Your task to perform on an android device: change notification settings in the gmail app Image 0: 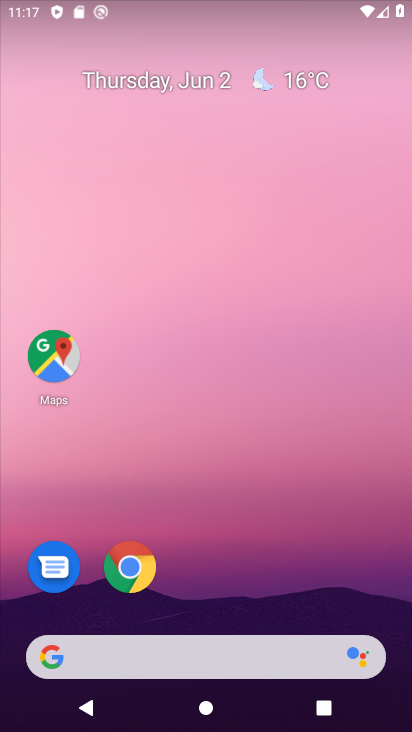
Step 0: drag from (208, 566) to (261, 45)
Your task to perform on an android device: change notification settings in the gmail app Image 1: 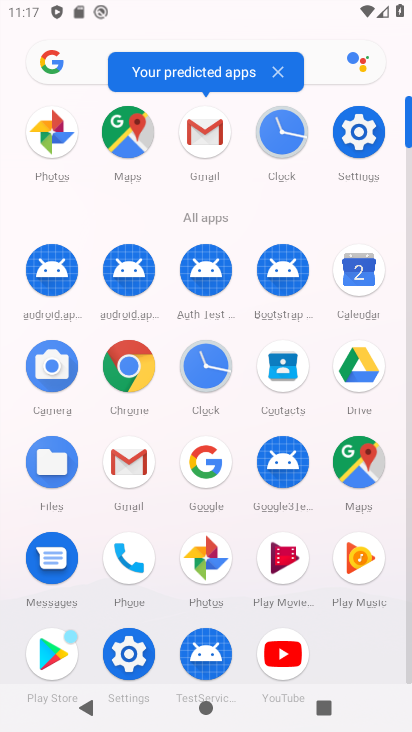
Step 1: drag from (207, 324) to (184, 161)
Your task to perform on an android device: change notification settings in the gmail app Image 2: 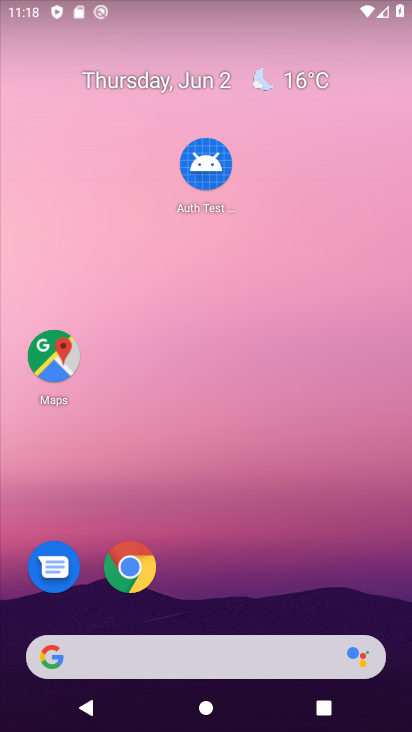
Step 2: drag from (164, 553) to (165, 17)
Your task to perform on an android device: change notification settings in the gmail app Image 3: 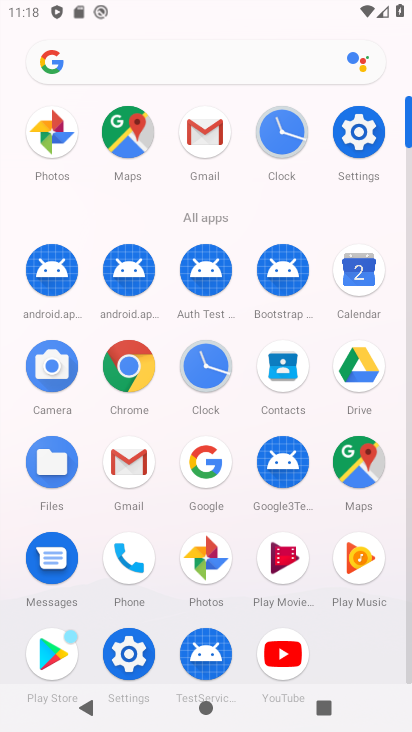
Step 3: click (204, 139)
Your task to perform on an android device: change notification settings in the gmail app Image 4: 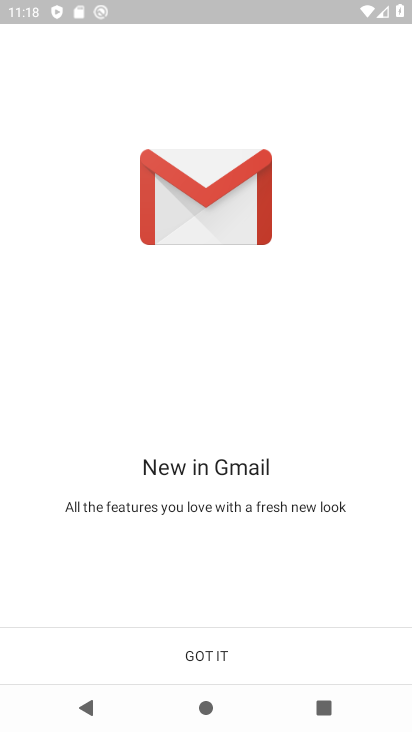
Step 4: click (240, 672)
Your task to perform on an android device: change notification settings in the gmail app Image 5: 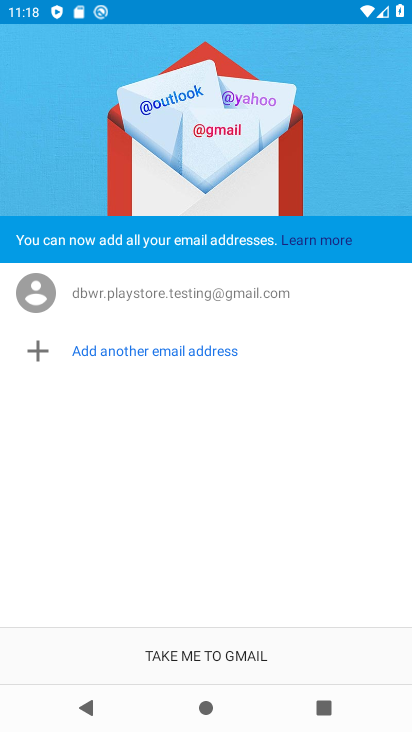
Step 5: click (240, 672)
Your task to perform on an android device: change notification settings in the gmail app Image 6: 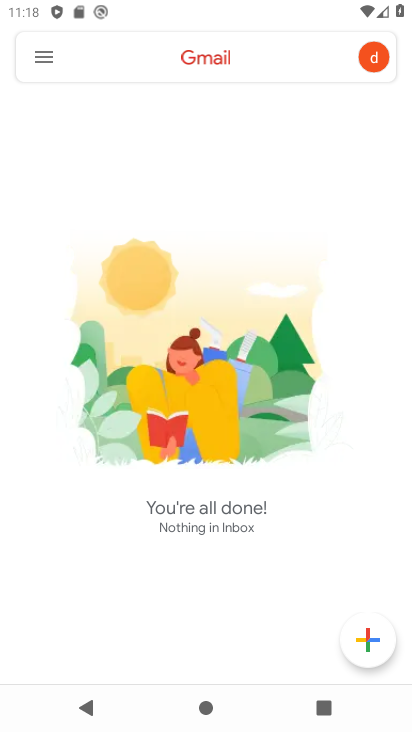
Step 6: click (37, 52)
Your task to perform on an android device: change notification settings in the gmail app Image 7: 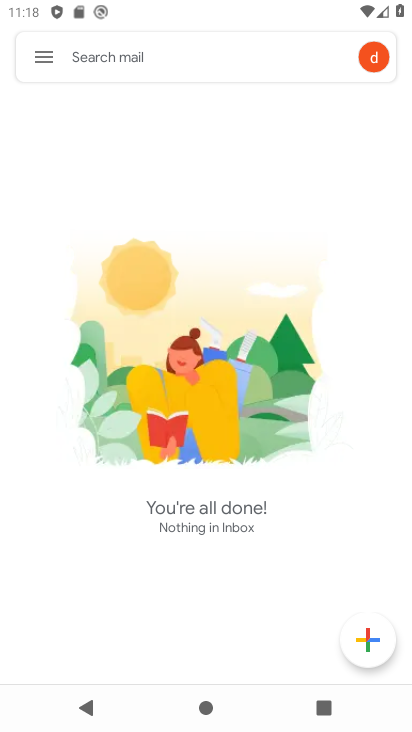
Step 7: click (48, 64)
Your task to perform on an android device: change notification settings in the gmail app Image 8: 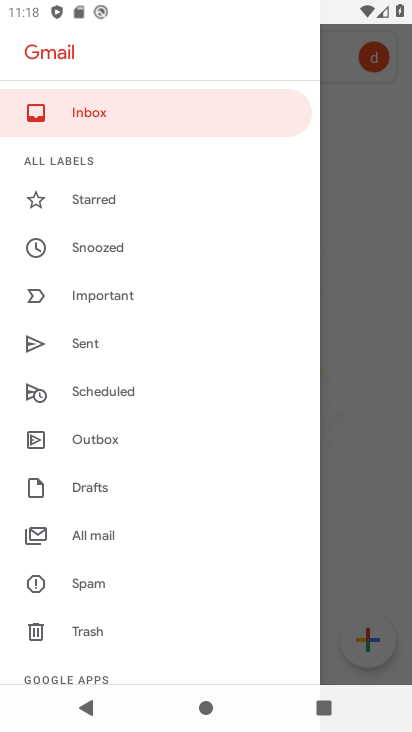
Step 8: drag from (144, 625) to (169, 199)
Your task to perform on an android device: change notification settings in the gmail app Image 9: 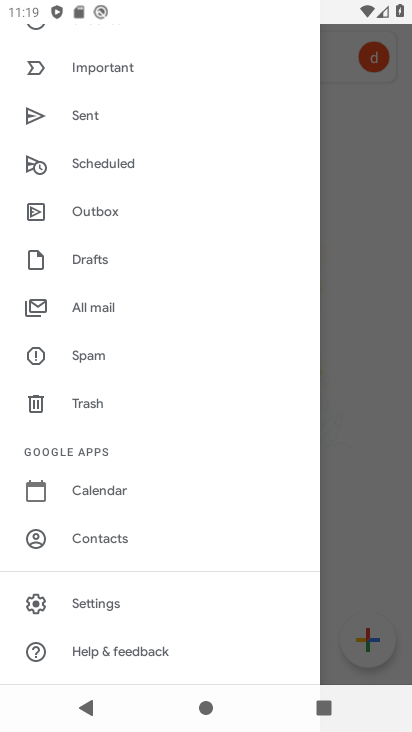
Step 9: click (95, 610)
Your task to perform on an android device: change notification settings in the gmail app Image 10: 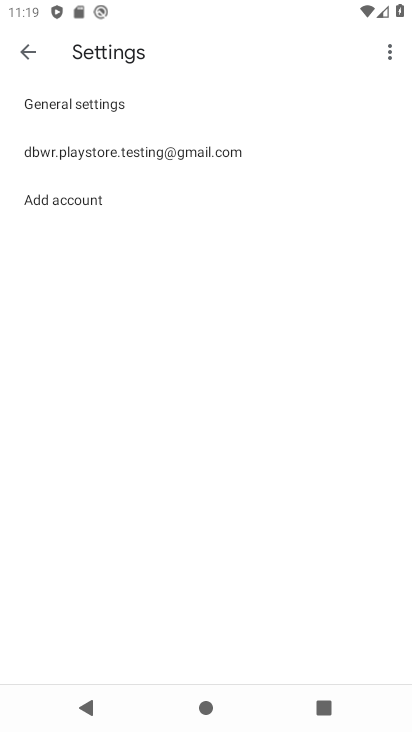
Step 10: click (176, 137)
Your task to perform on an android device: change notification settings in the gmail app Image 11: 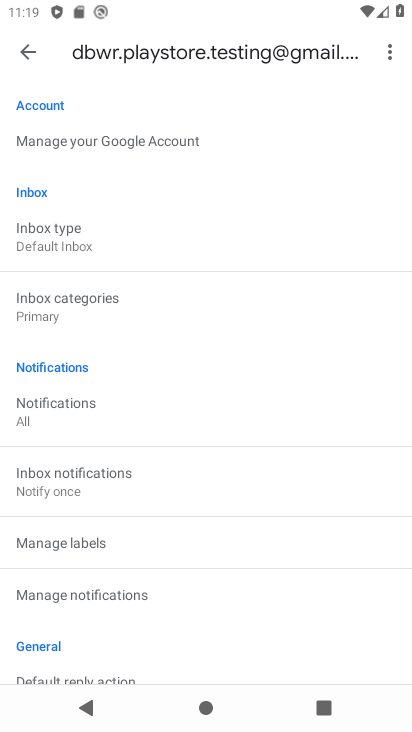
Step 11: click (70, 423)
Your task to perform on an android device: change notification settings in the gmail app Image 12: 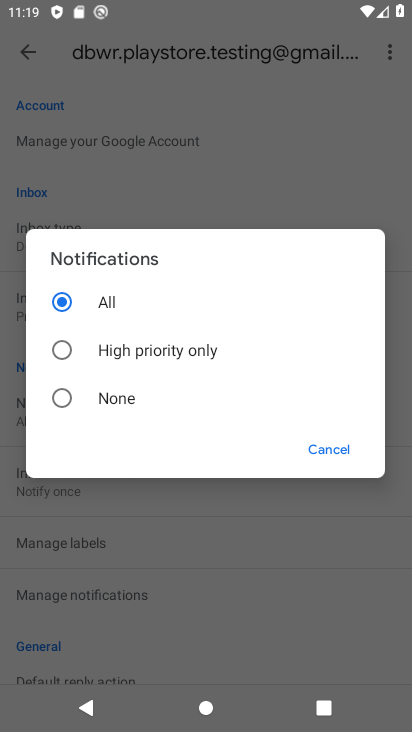
Step 12: click (80, 409)
Your task to perform on an android device: change notification settings in the gmail app Image 13: 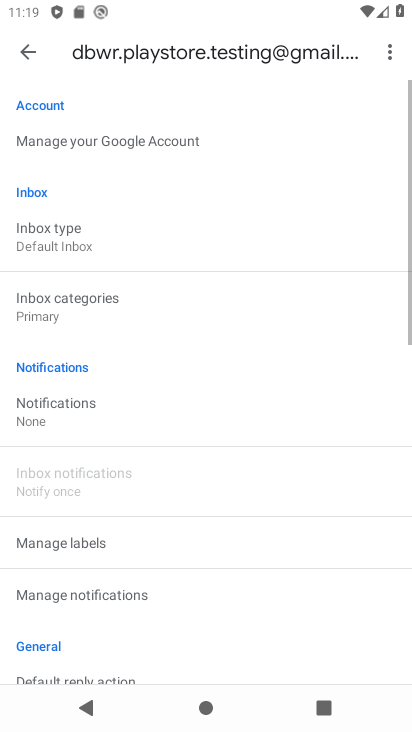
Step 13: task complete